Your task to perform on an android device: Go to battery settings Image 0: 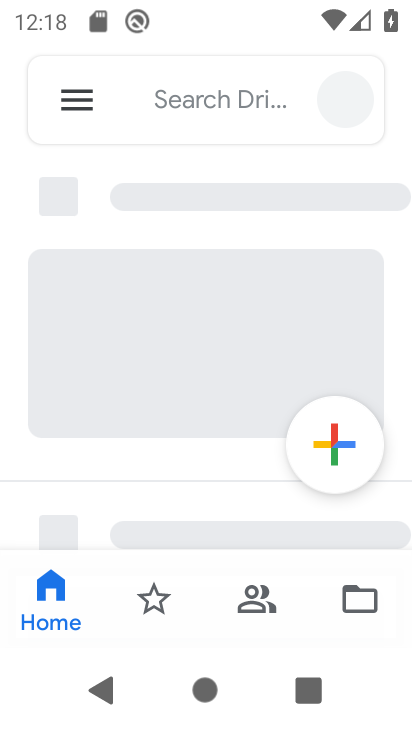
Step 0: press home button
Your task to perform on an android device: Go to battery settings Image 1: 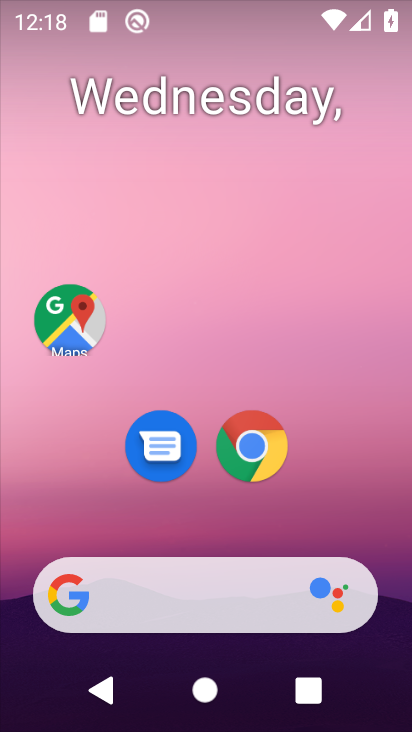
Step 1: drag from (10, 645) to (279, 144)
Your task to perform on an android device: Go to battery settings Image 2: 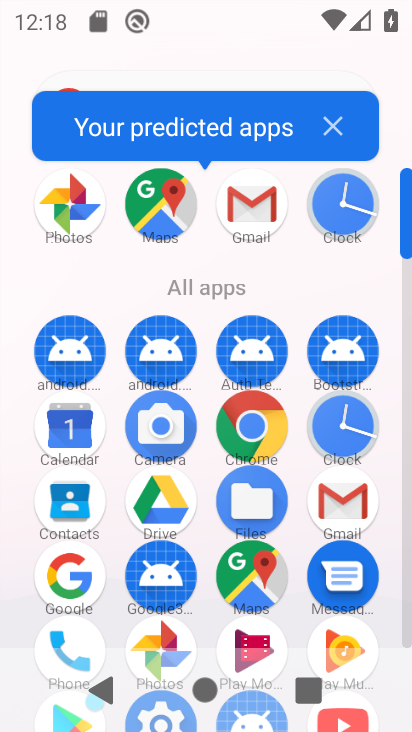
Step 2: drag from (55, 537) to (210, 249)
Your task to perform on an android device: Go to battery settings Image 3: 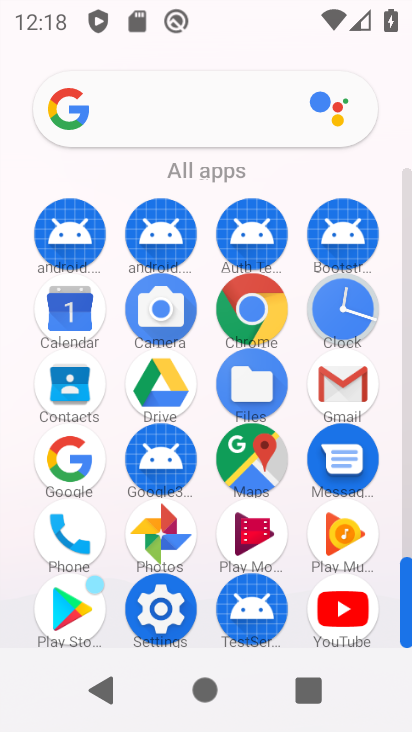
Step 3: click (142, 608)
Your task to perform on an android device: Go to battery settings Image 4: 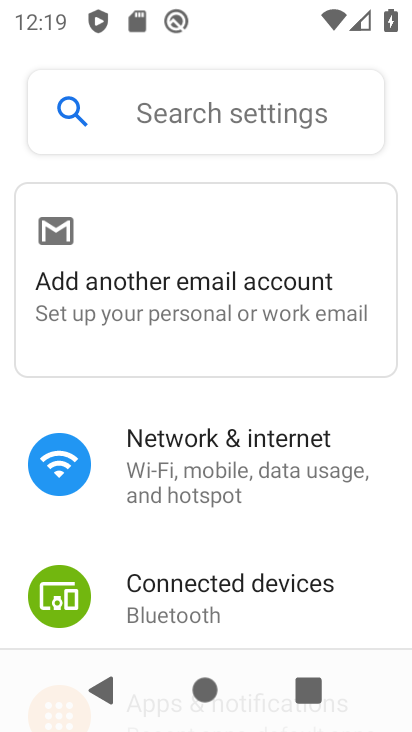
Step 4: drag from (92, 386) to (207, 193)
Your task to perform on an android device: Go to battery settings Image 5: 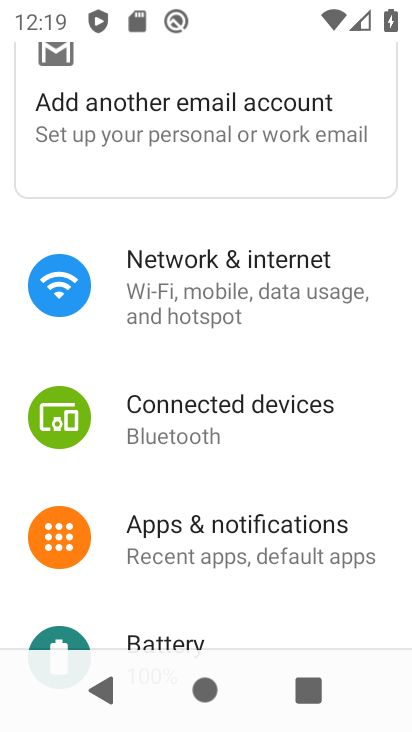
Step 5: drag from (72, 518) to (247, 362)
Your task to perform on an android device: Go to battery settings Image 6: 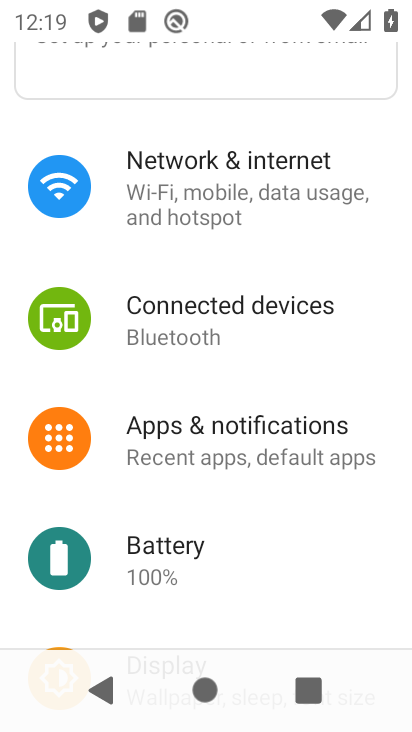
Step 6: click (46, 580)
Your task to perform on an android device: Go to battery settings Image 7: 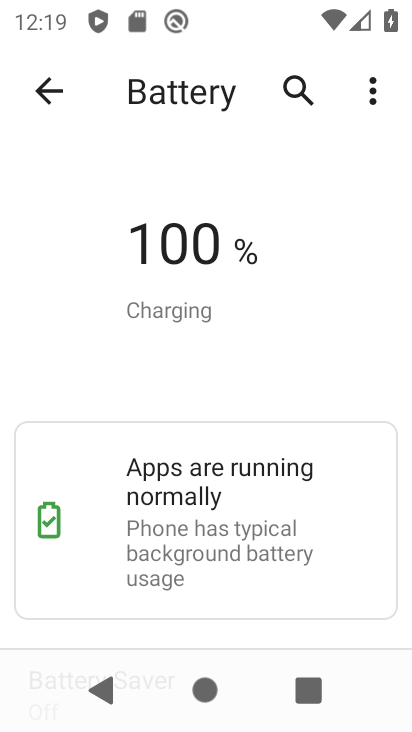
Step 7: task complete